Your task to perform on an android device: Search for Mexican restaurants on Maps Image 0: 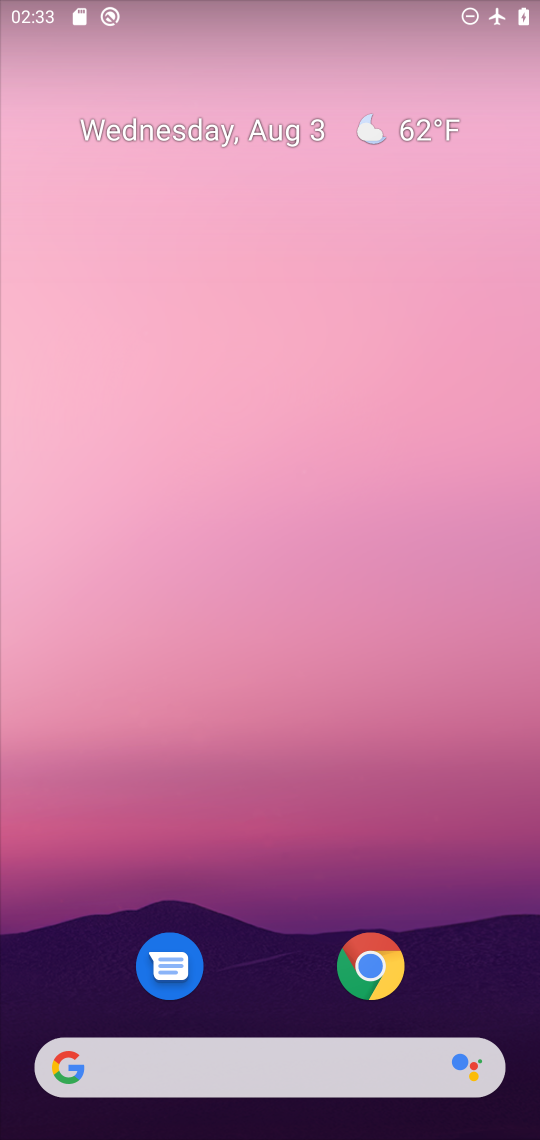
Step 0: drag from (267, 979) to (269, 268)
Your task to perform on an android device: Search for Mexican restaurants on Maps Image 1: 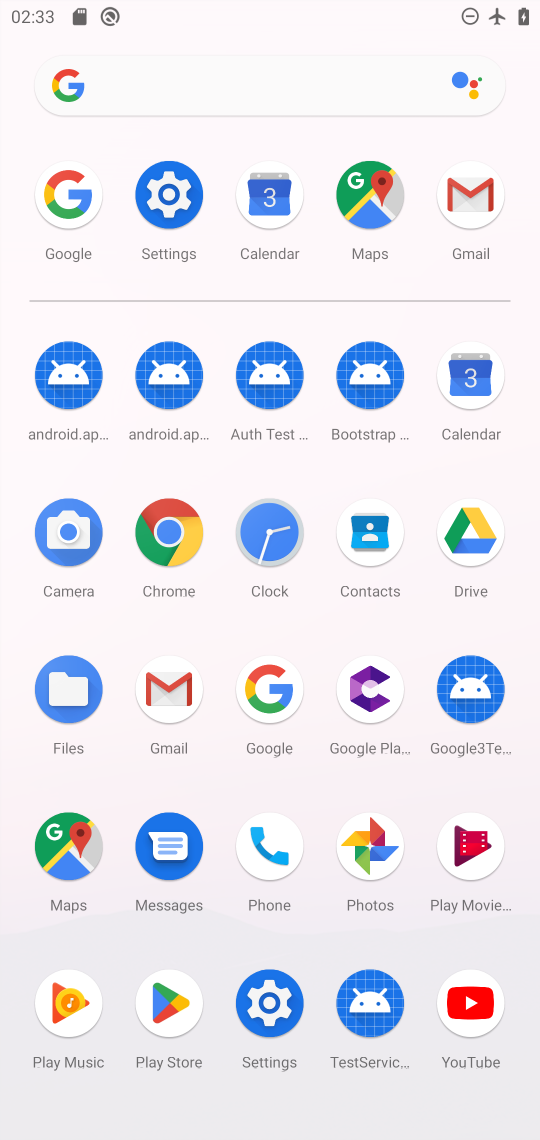
Step 1: click (385, 194)
Your task to perform on an android device: Search for Mexican restaurants on Maps Image 2: 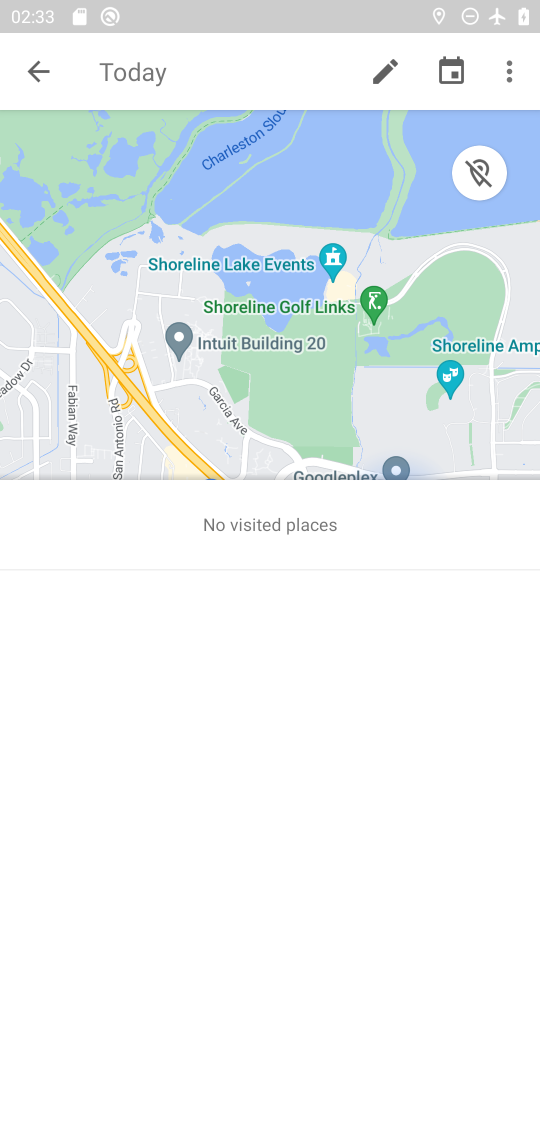
Step 2: click (34, 71)
Your task to perform on an android device: Search for Mexican restaurants on Maps Image 3: 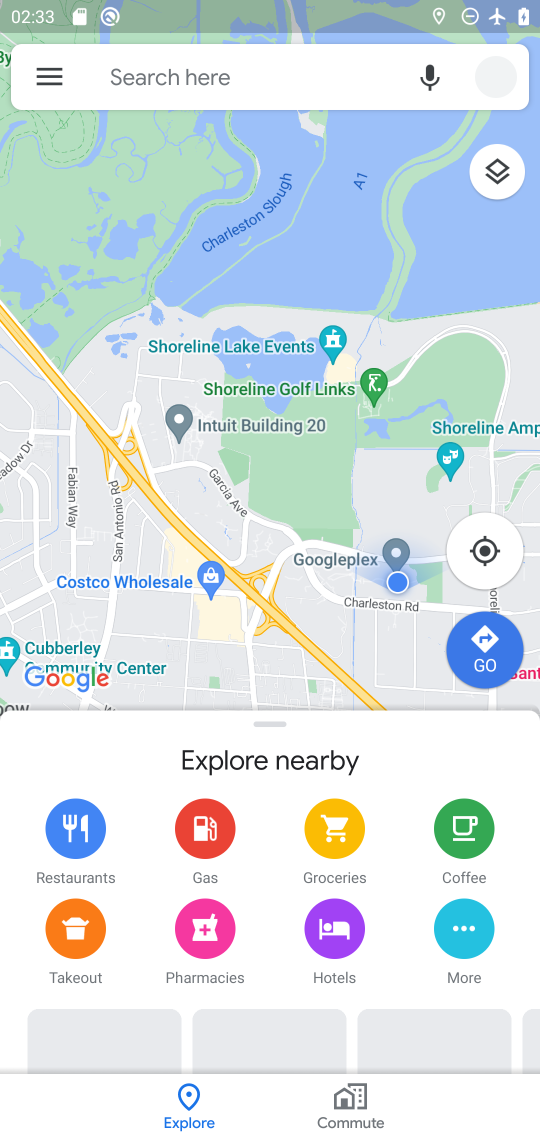
Step 3: click (177, 66)
Your task to perform on an android device: Search for Mexican restaurants on Maps Image 4: 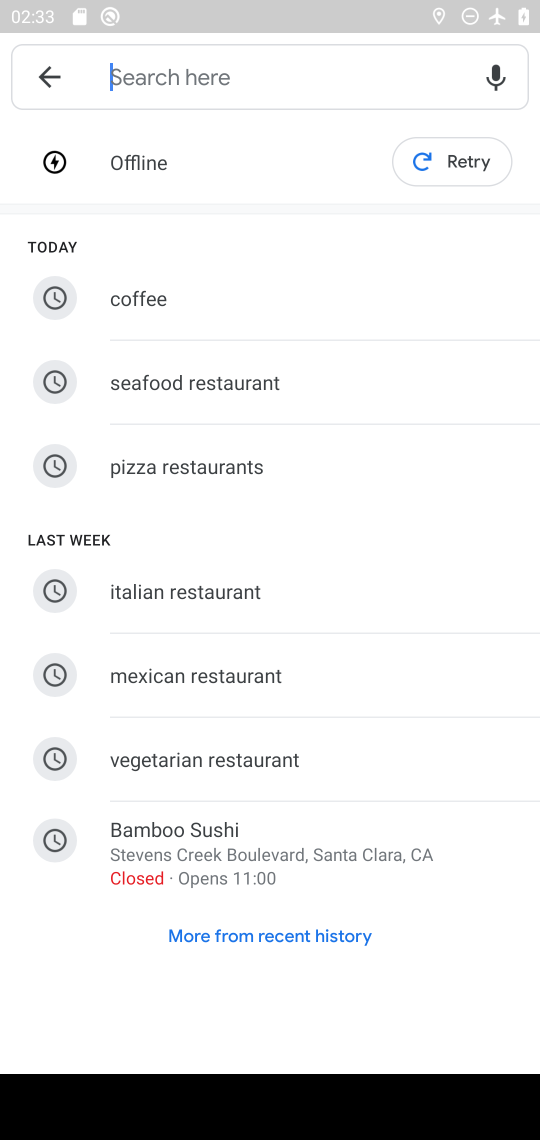
Step 4: click (199, 674)
Your task to perform on an android device: Search for Mexican restaurants on Maps Image 5: 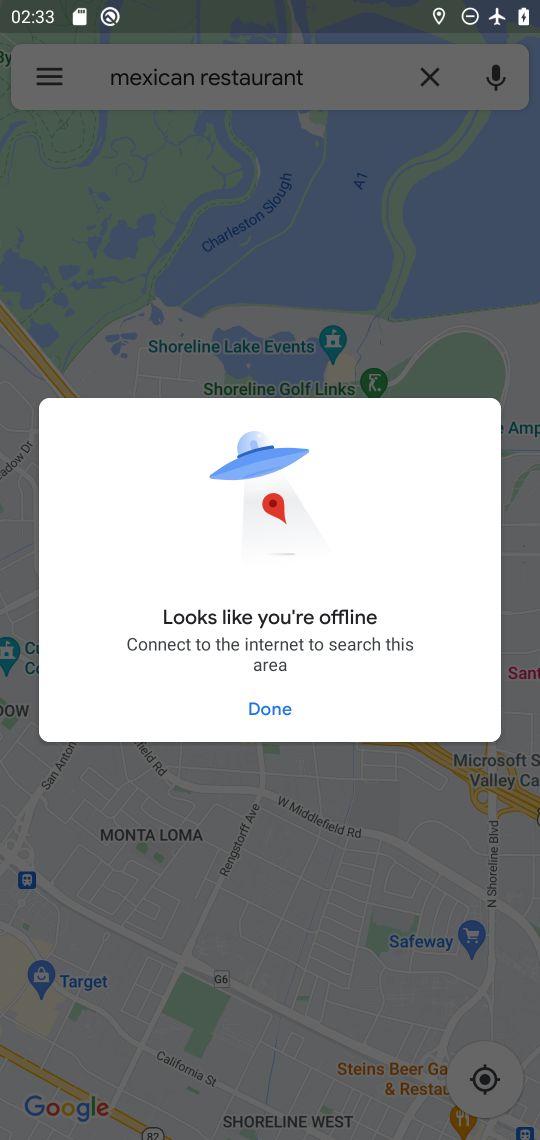
Step 5: task complete